Your task to perform on an android device: turn on sleep mode Image 0: 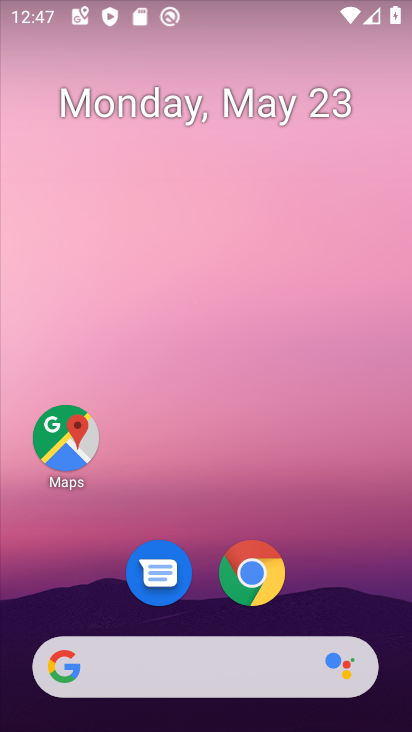
Step 0: drag from (255, 661) to (395, 320)
Your task to perform on an android device: turn on sleep mode Image 1: 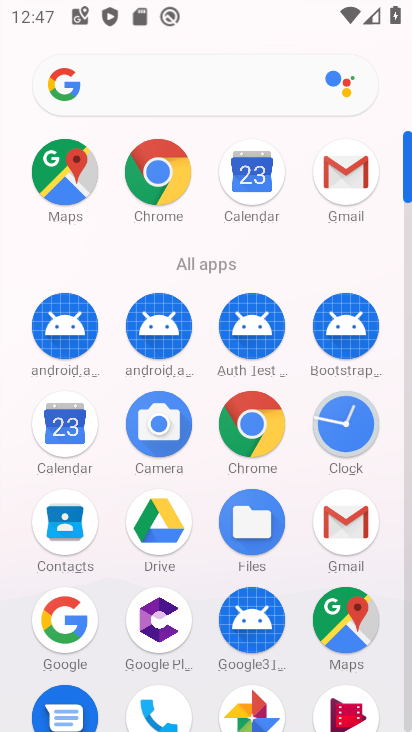
Step 1: drag from (304, 636) to (265, 224)
Your task to perform on an android device: turn on sleep mode Image 2: 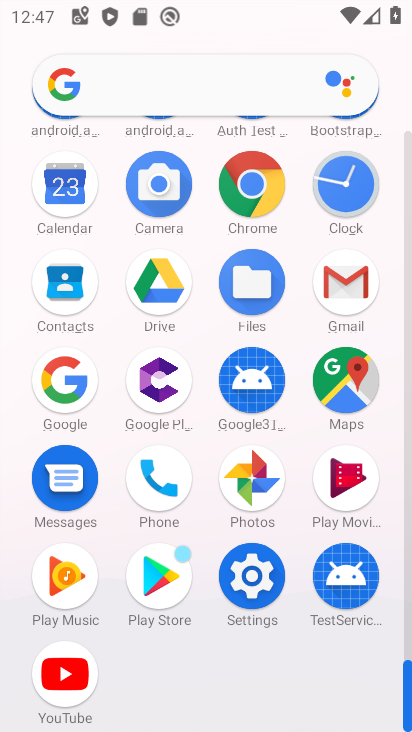
Step 2: click (249, 567)
Your task to perform on an android device: turn on sleep mode Image 3: 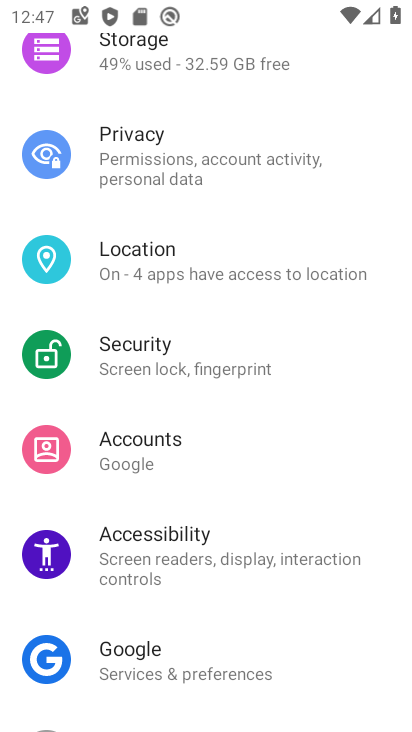
Step 3: task complete